Your task to perform on an android device: Go to Google maps Image 0: 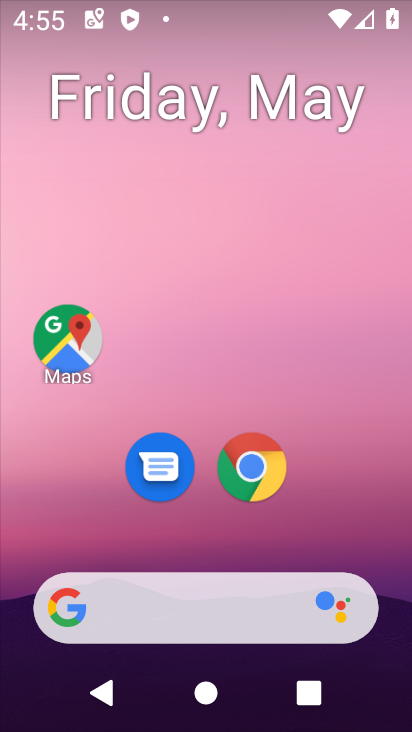
Step 0: click (66, 332)
Your task to perform on an android device: Go to Google maps Image 1: 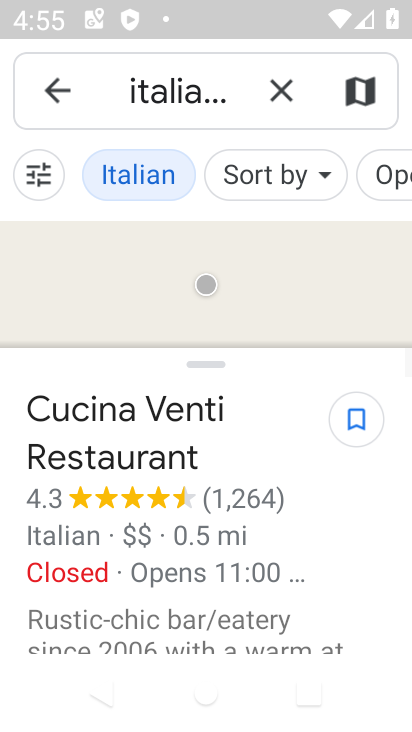
Step 1: task complete